Your task to perform on an android device: open chrome and create a bookmark for the current page Image 0: 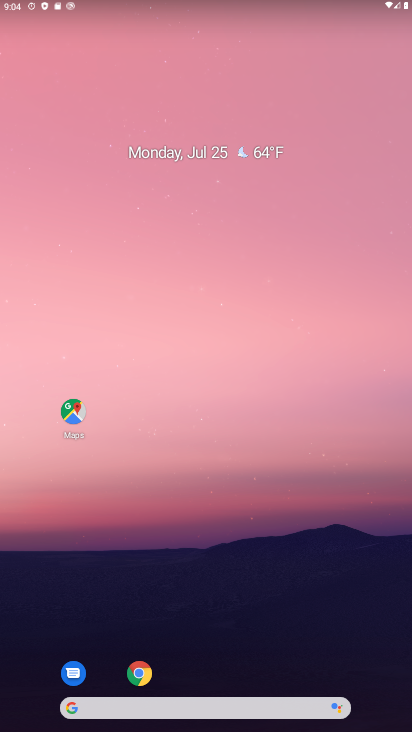
Step 0: click (136, 666)
Your task to perform on an android device: open chrome and create a bookmark for the current page Image 1: 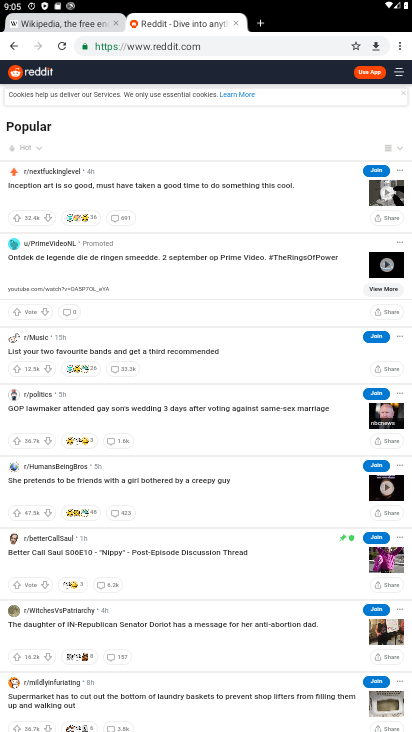
Step 1: click (349, 48)
Your task to perform on an android device: open chrome and create a bookmark for the current page Image 2: 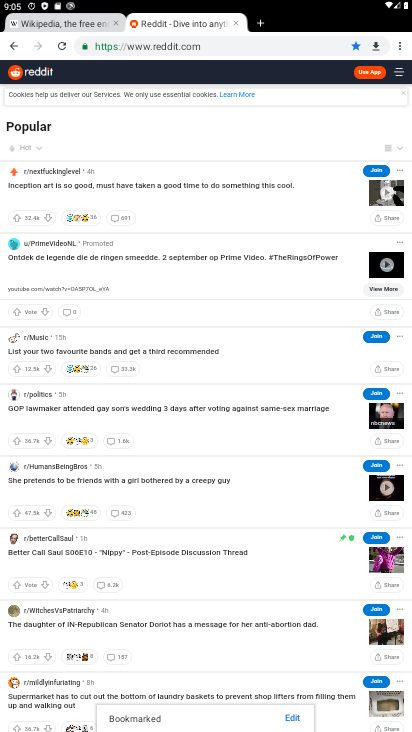
Step 2: task complete